Your task to perform on an android device: Open Google Chrome and click the shortcut for Amazon.com Image 0: 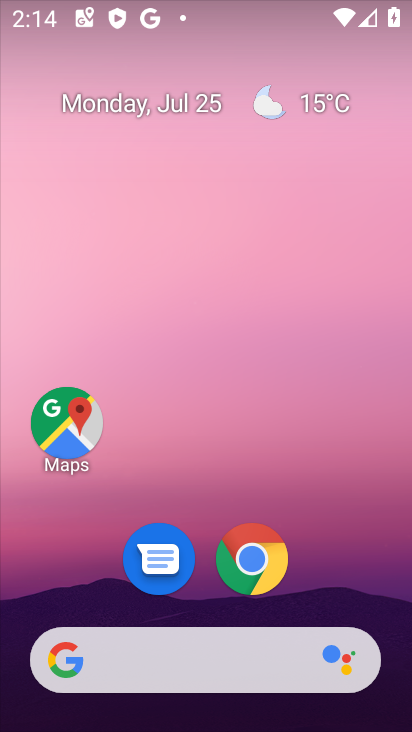
Step 0: click (258, 552)
Your task to perform on an android device: Open Google Chrome and click the shortcut for Amazon.com Image 1: 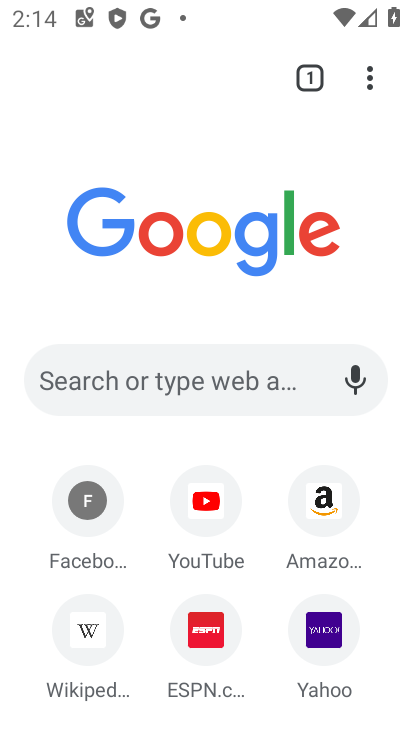
Step 1: click (329, 503)
Your task to perform on an android device: Open Google Chrome and click the shortcut for Amazon.com Image 2: 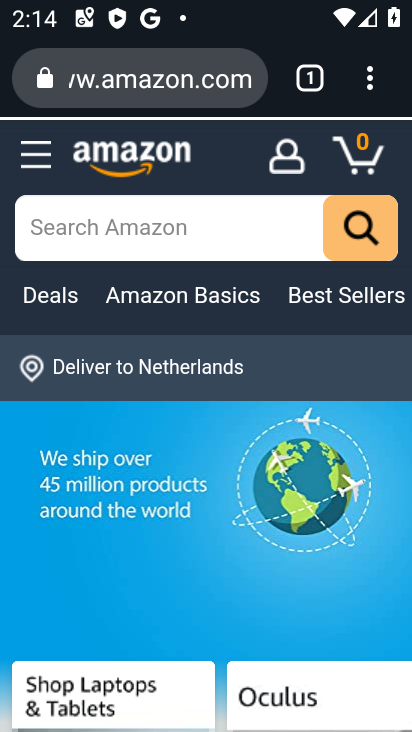
Step 2: task complete